Your task to perform on an android device: Open settings Image 0: 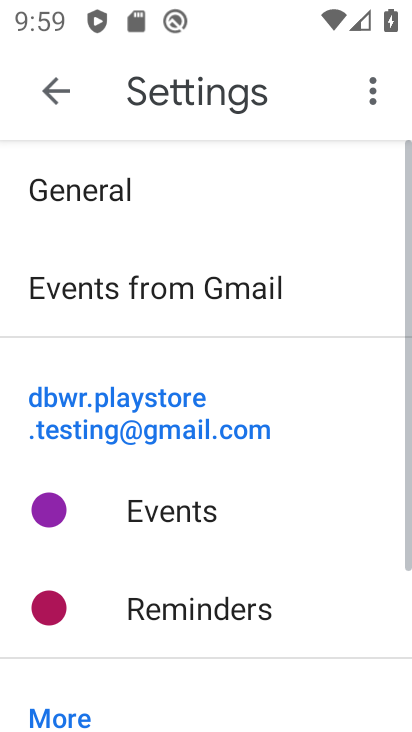
Step 0: drag from (187, 558) to (187, 158)
Your task to perform on an android device: Open settings Image 1: 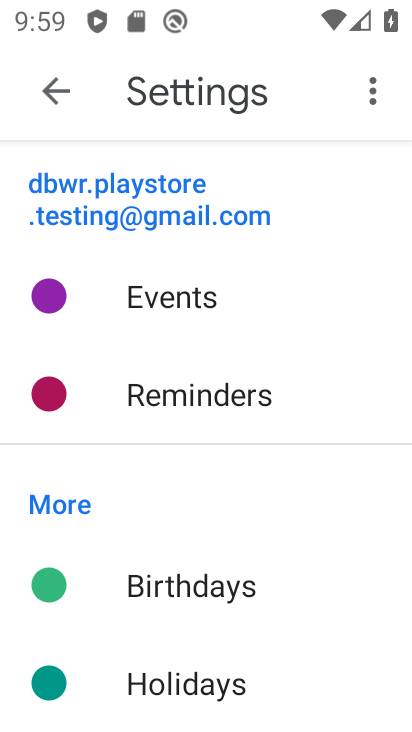
Step 1: press home button
Your task to perform on an android device: Open settings Image 2: 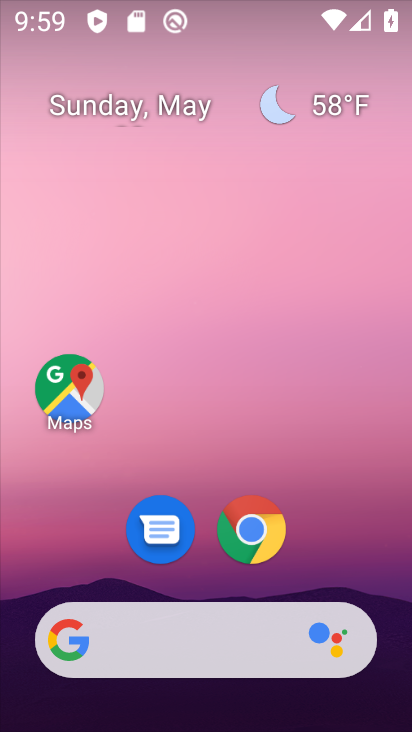
Step 2: drag from (179, 570) to (20, 4)
Your task to perform on an android device: Open settings Image 3: 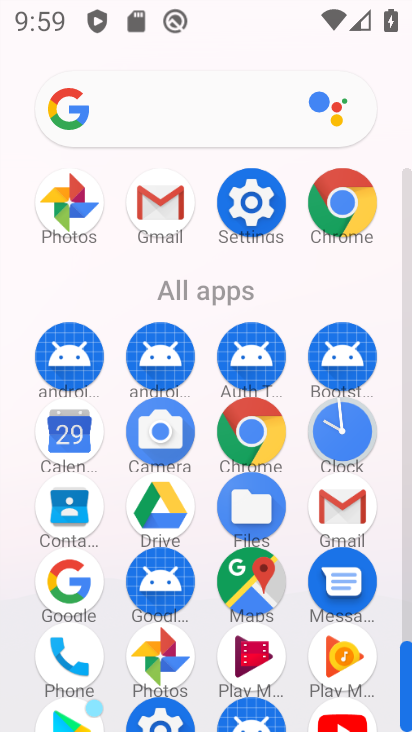
Step 3: click (244, 203)
Your task to perform on an android device: Open settings Image 4: 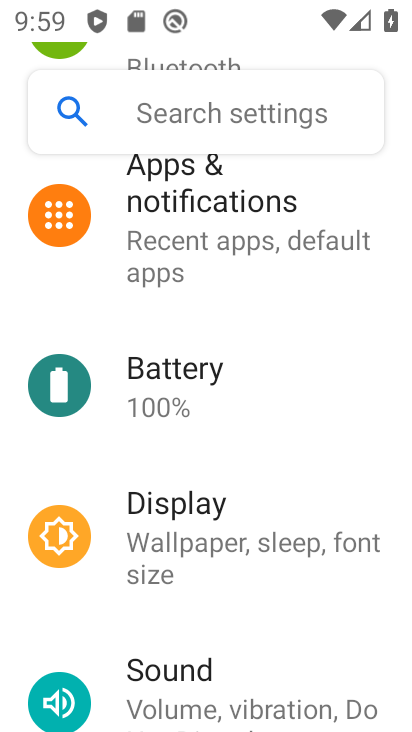
Step 4: task complete